Your task to perform on an android device: turn off picture-in-picture Image 0: 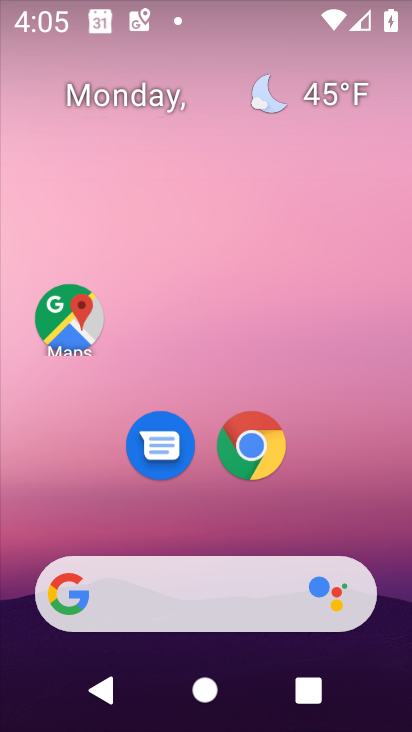
Step 0: click (265, 453)
Your task to perform on an android device: turn off picture-in-picture Image 1: 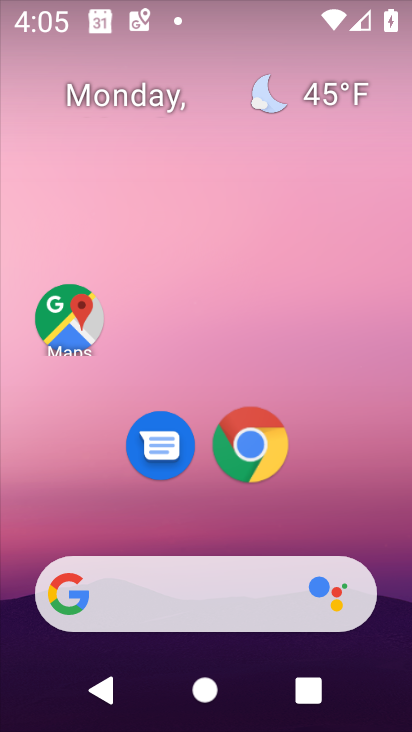
Step 1: click (264, 452)
Your task to perform on an android device: turn off picture-in-picture Image 2: 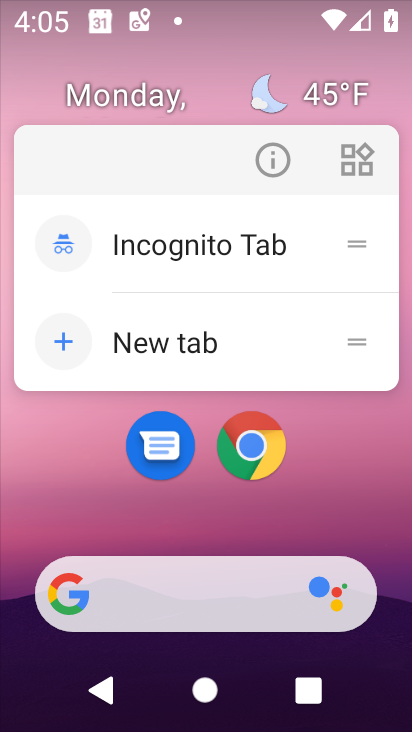
Step 2: click (271, 182)
Your task to perform on an android device: turn off picture-in-picture Image 3: 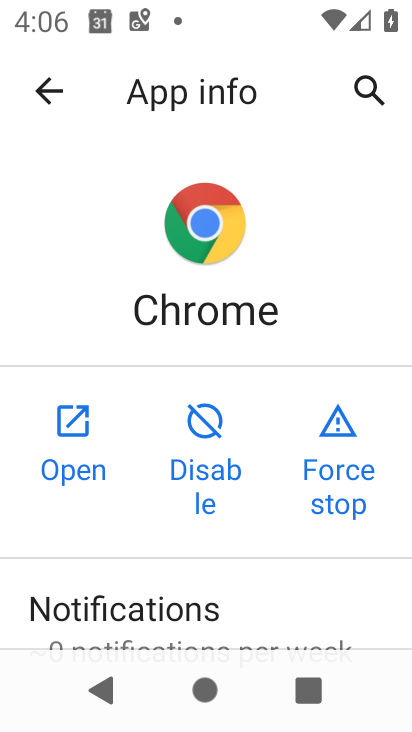
Step 3: drag from (253, 549) to (256, 126)
Your task to perform on an android device: turn off picture-in-picture Image 4: 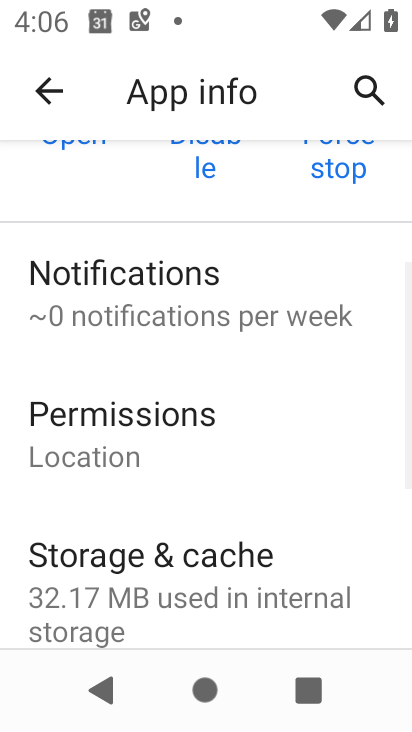
Step 4: drag from (319, 533) to (318, 93)
Your task to perform on an android device: turn off picture-in-picture Image 5: 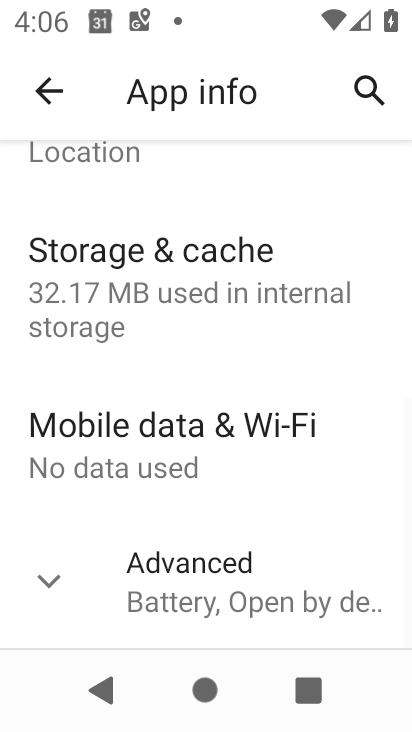
Step 5: click (352, 582)
Your task to perform on an android device: turn off picture-in-picture Image 6: 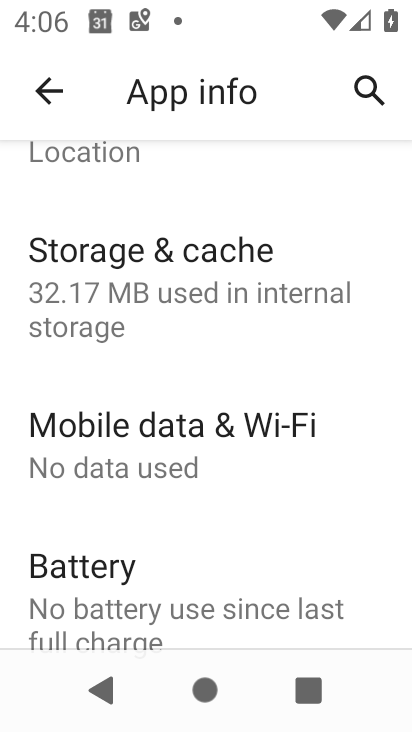
Step 6: drag from (305, 624) to (288, 160)
Your task to perform on an android device: turn off picture-in-picture Image 7: 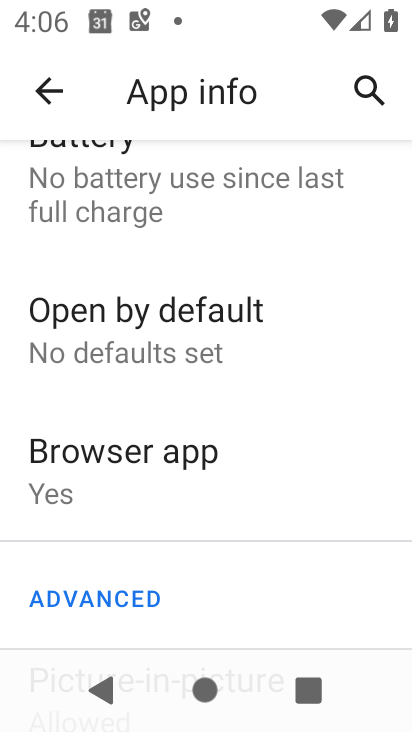
Step 7: drag from (227, 552) to (249, 141)
Your task to perform on an android device: turn off picture-in-picture Image 8: 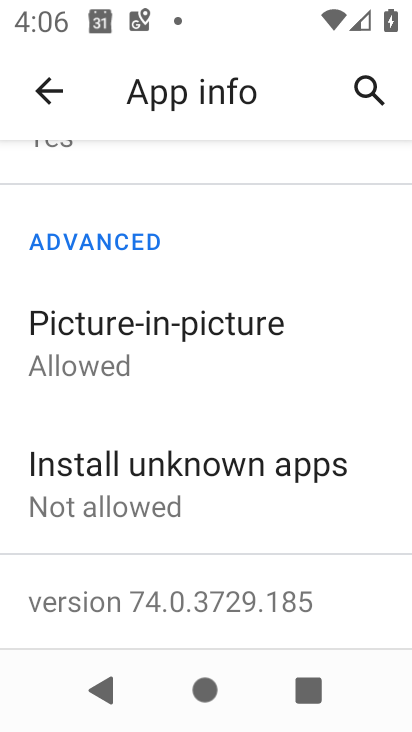
Step 8: drag from (253, 535) to (237, 290)
Your task to perform on an android device: turn off picture-in-picture Image 9: 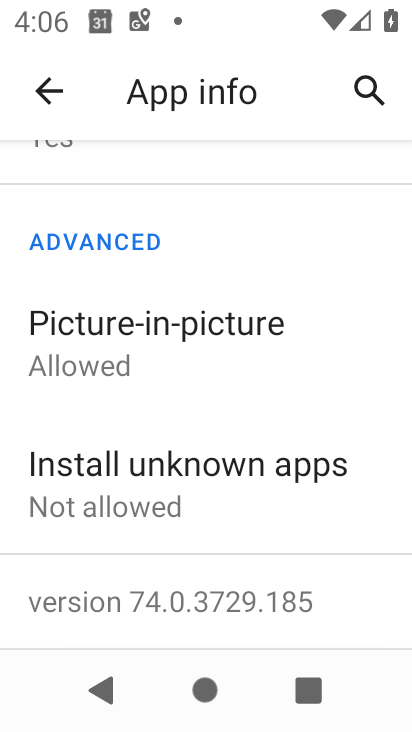
Step 9: click (237, 321)
Your task to perform on an android device: turn off picture-in-picture Image 10: 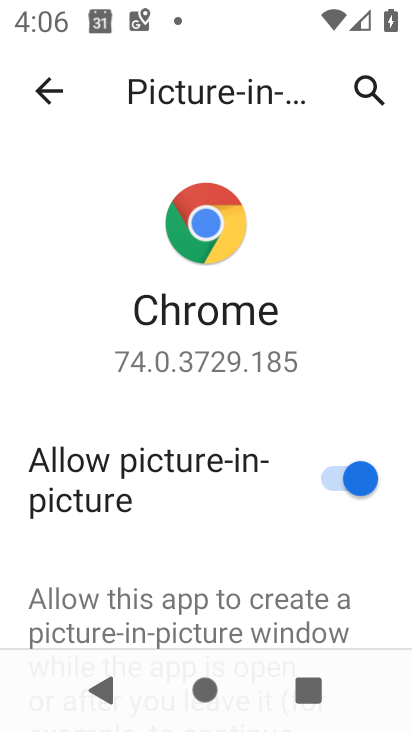
Step 10: click (337, 471)
Your task to perform on an android device: turn off picture-in-picture Image 11: 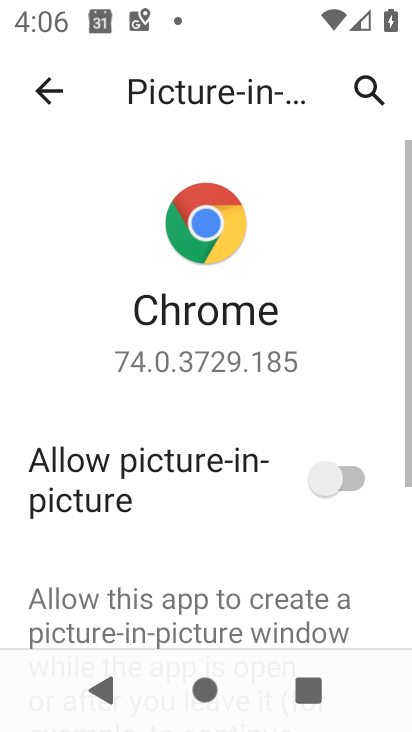
Step 11: task complete